Your task to perform on an android device: remove spam from my inbox in the gmail app Image 0: 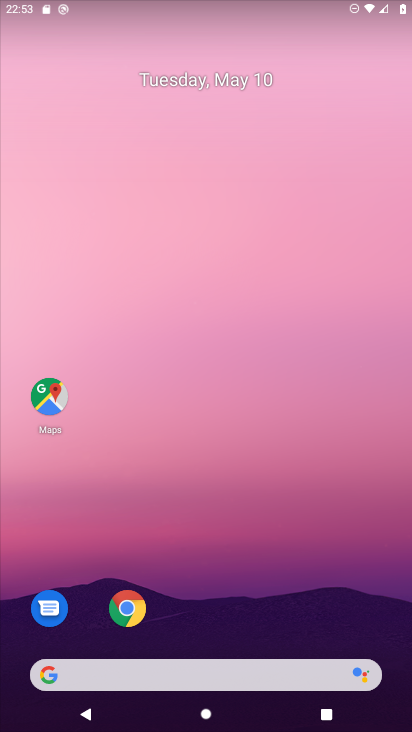
Step 0: drag from (209, 584) to (256, 184)
Your task to perform on an android device: remove spam from my inbox in the gmail app Image 1: 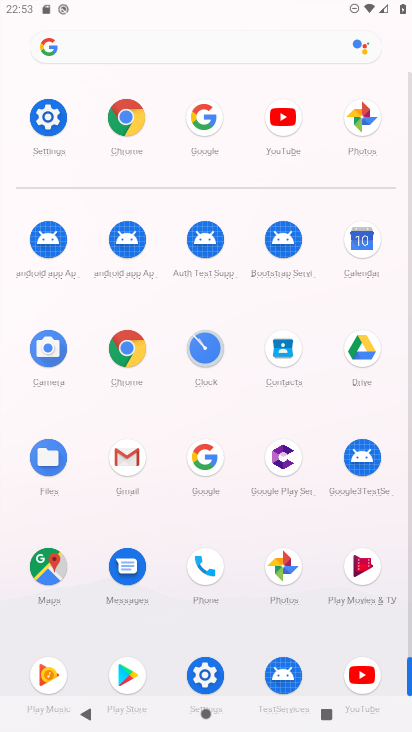
Step 1: click (115, 456)
Your task to perform on an android device: remove spam from my inbox in the gmail app Image 2: 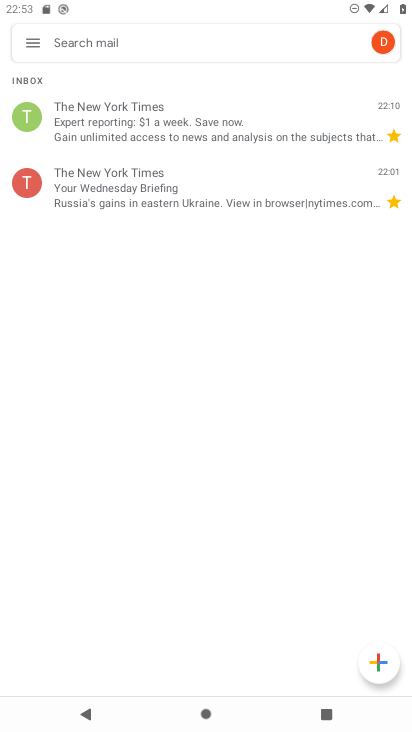
Step 2: click (30, 40)
Your task to perform on an android device: remove spam from my inbox in the gmail app Image 3: 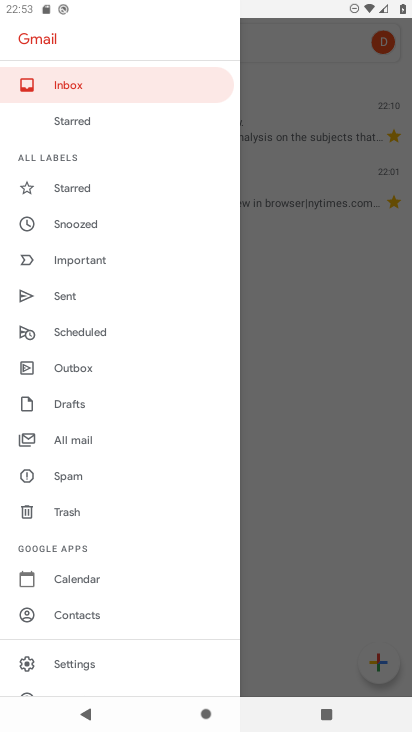
Step 3: click (78, 478)
Your task to perform on an android device: remove spam from my inbox in the gmail app Image 4: 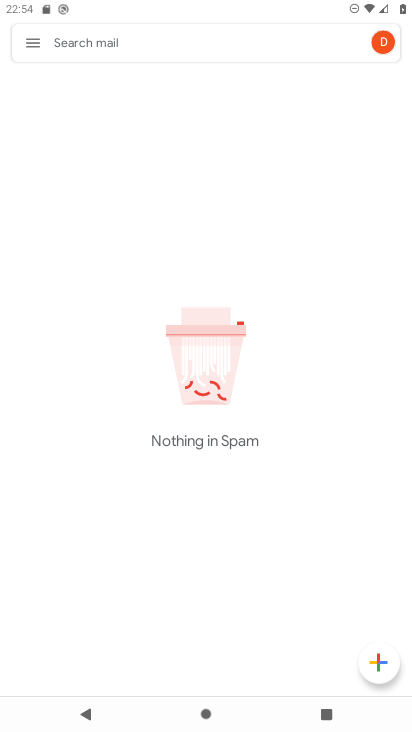
Step 4: task complete